Your task to perform on an android device: find photos in the google photos app Image 0: 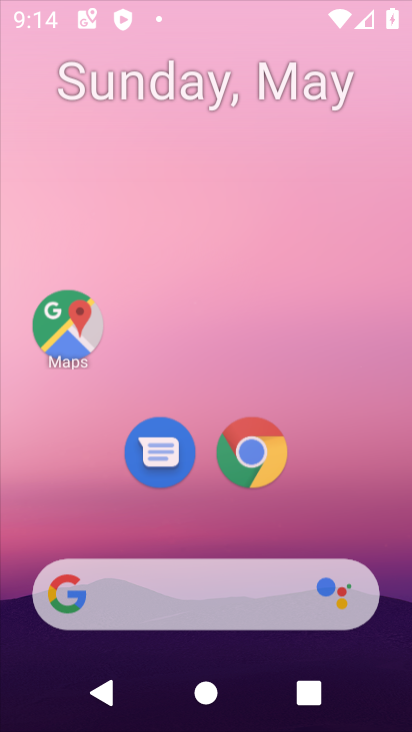
Step 0: drag from (374, 557) to (297, 139)
Your task to perform on an android device: find photos in the google photos app Image 1: 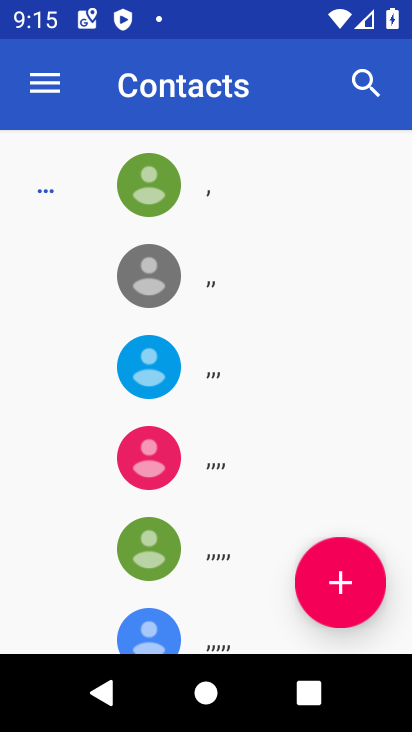
Step 1: press home button
Your task to perform on an android device: find photos in the google photos app Image 2: 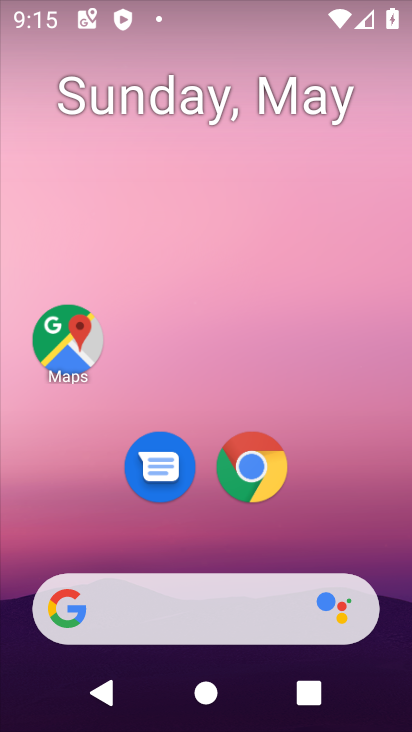
Step 2: drag from (386, 556) to (292, 87)
Your task to perform on an android device: find photos in the google photos app Image 3: 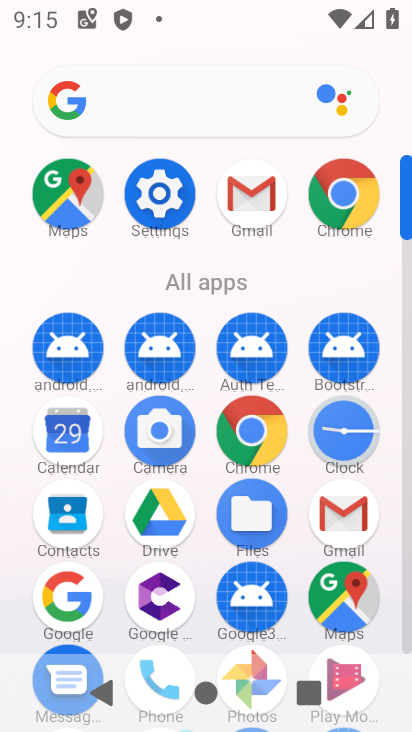
Step 3: click (411, 649)
Your task to perform on an android device: find photos in the google photos app Image 4: 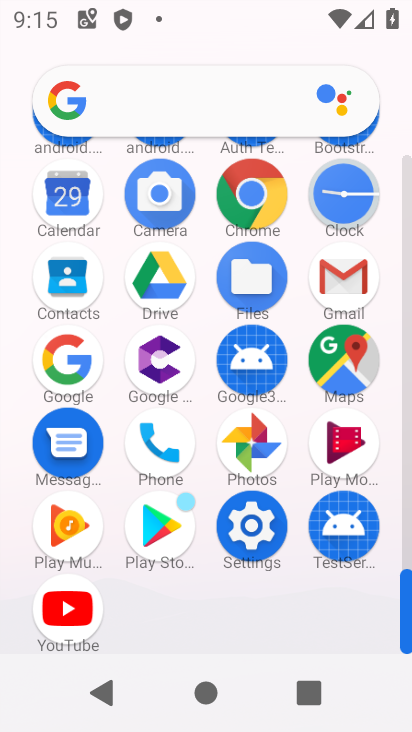
Step 4: click (261, 452)
Your task to perform on an android device: find photos in the google photos app Image 5: 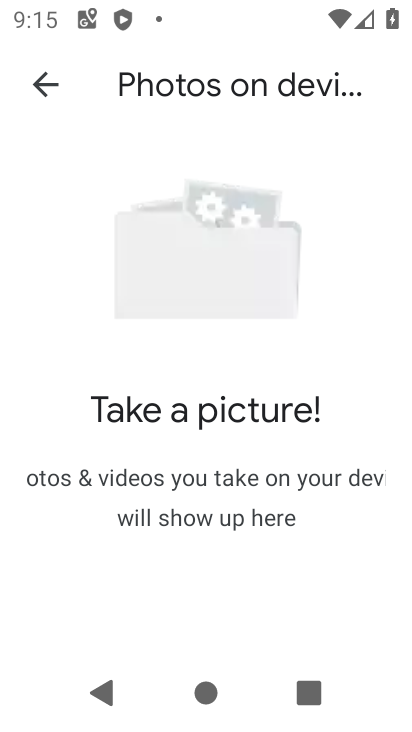
Step 5: click (58, 83)
Your task to perform on an android device: find photos in the google photos app Image 6: 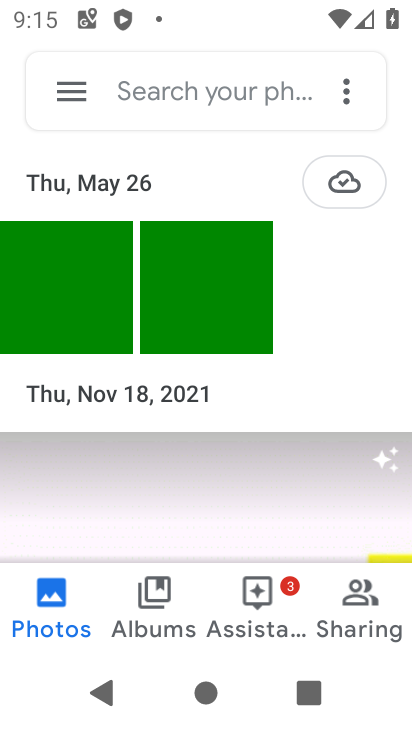
Step 6: task complete